Your task to perform on an android device: Go to Reddit.com Image 0: 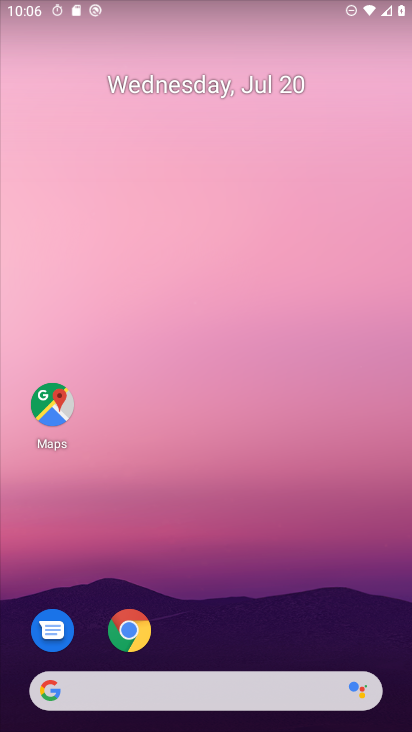
Step 0: drag from (188, 705) to (191, 275)
Your task to perform on an android device: Go to Reddit.com Image 1: 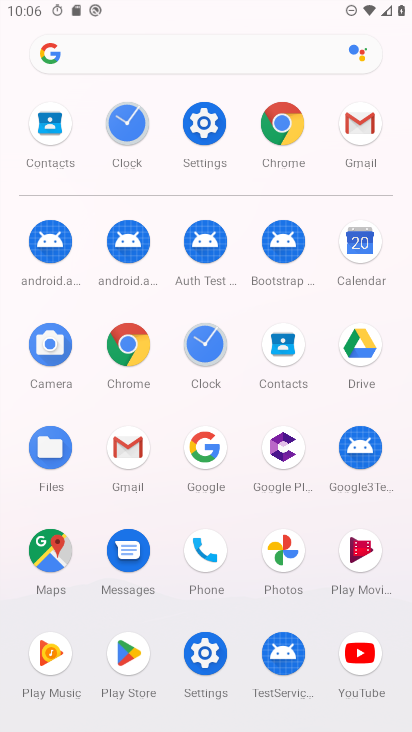
Step 1: click (284, 136)
Your task to perform on an android device: Go to Reddit.com Image 2: 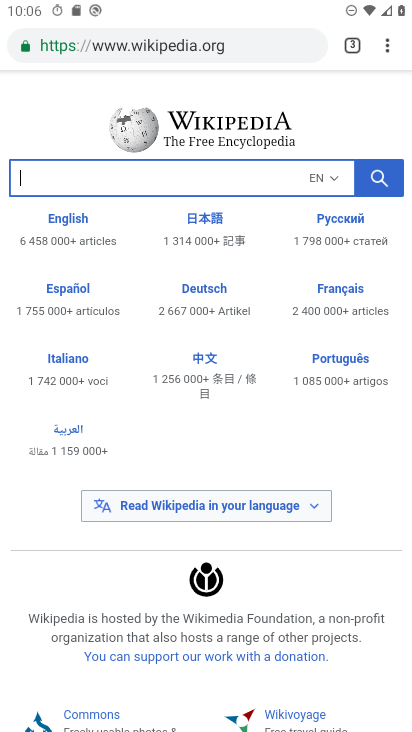
Step 2: click (193, 46)
Your task to perform on an android device: Go to Reddit.com Image 3: 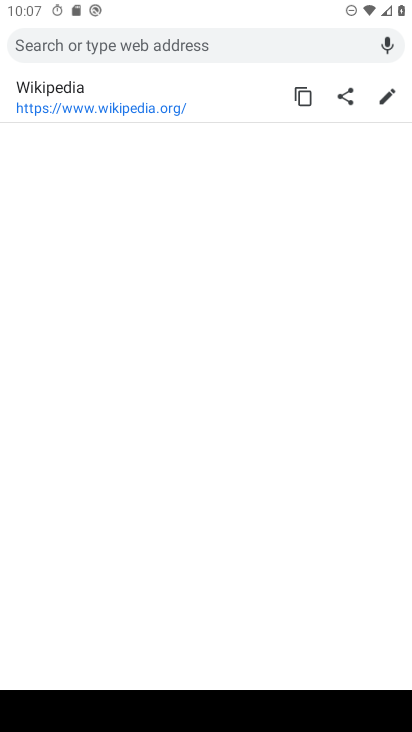
Step 3: type "reddit"
Your task to perform on an android device: Go to Reddit.com Image 4: 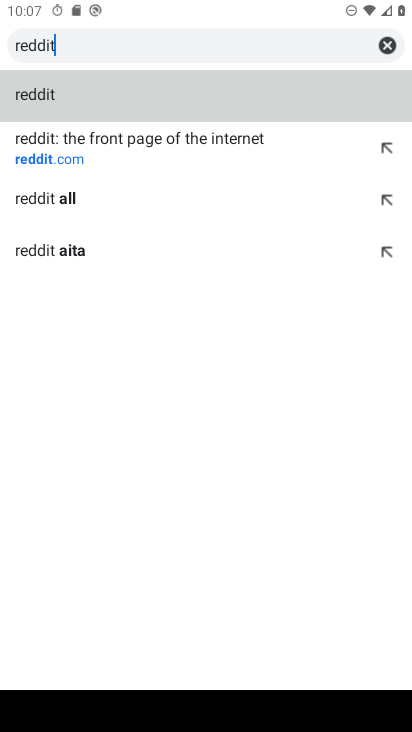
Step 4: click (173, 154)
Your task to perform on an android device: Go to Reddit.com Image 5: 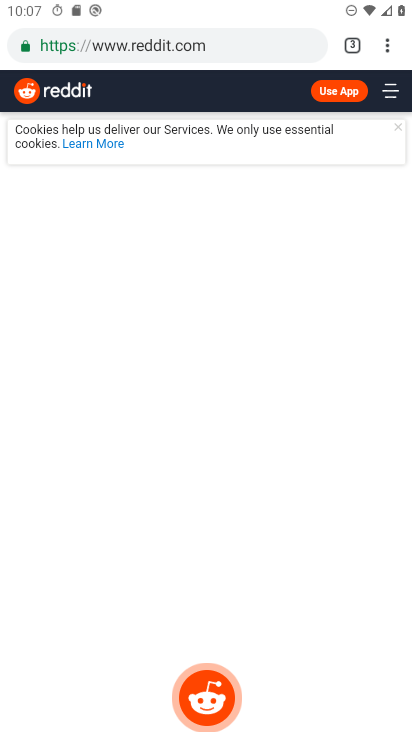
Step 5: task complete